Your task to perform on an android device: Open Chrome and go to the settings page Image 0: 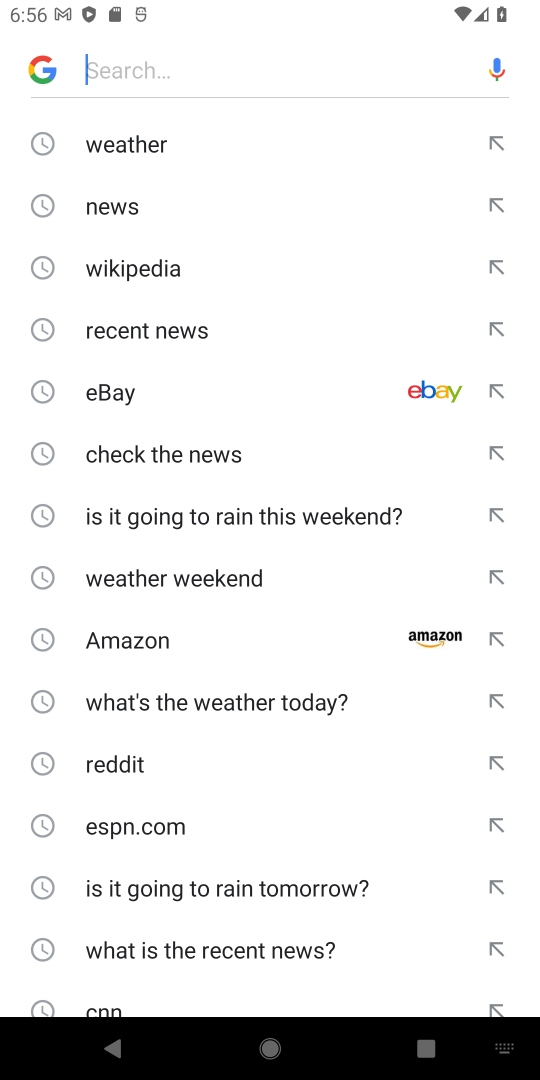
Step 0: press home button
Your task to perform on an android device: Open Chrome and go to the settings page Image 1: 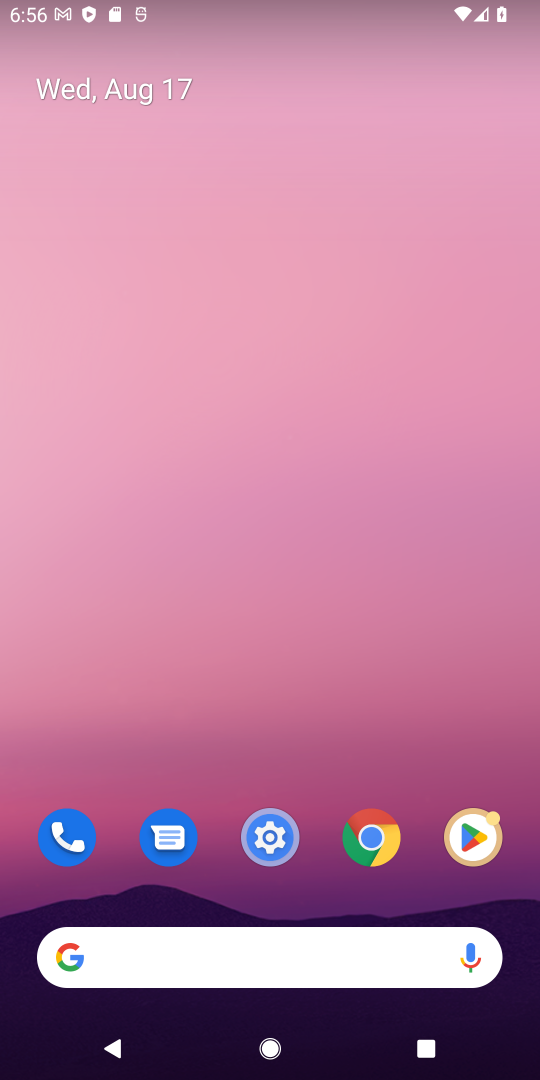
Step 1: click (370, 842)
Your task to perform on an android device: Open Chrome and go to the settings page Image 2: 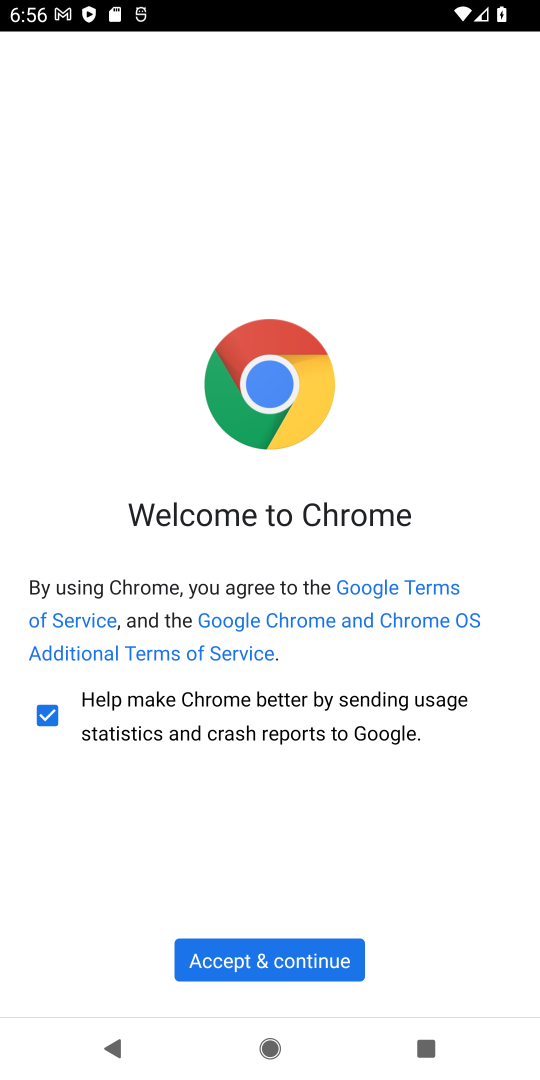
Step 2: click (344, 960)
Your task to perform on an android device: Open Chrome and go to the settings page Image 3: 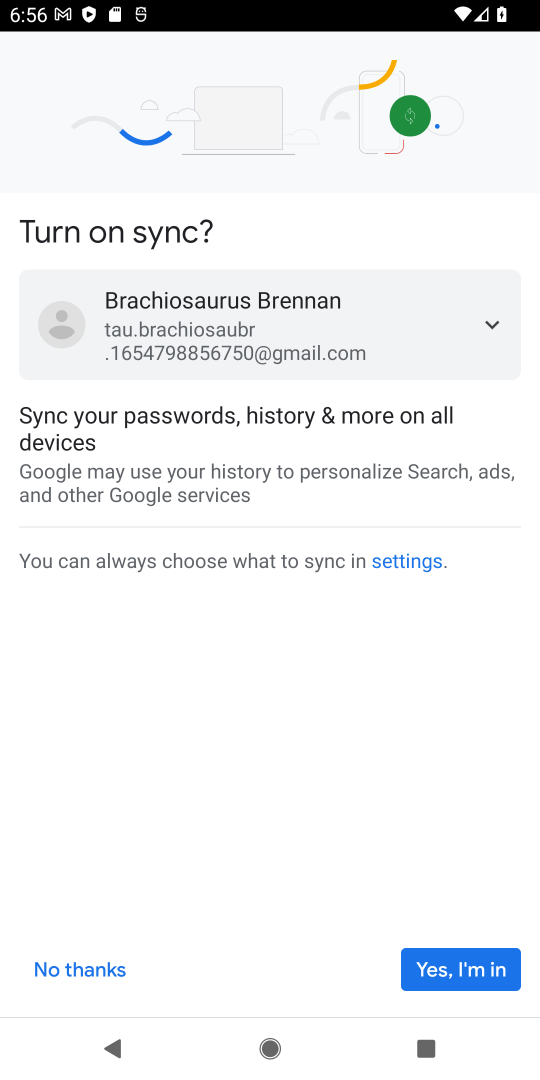
Step 3: click (427, 974)
Your task to perform on an android device: Open Chrome and go to the settings page Image 4: 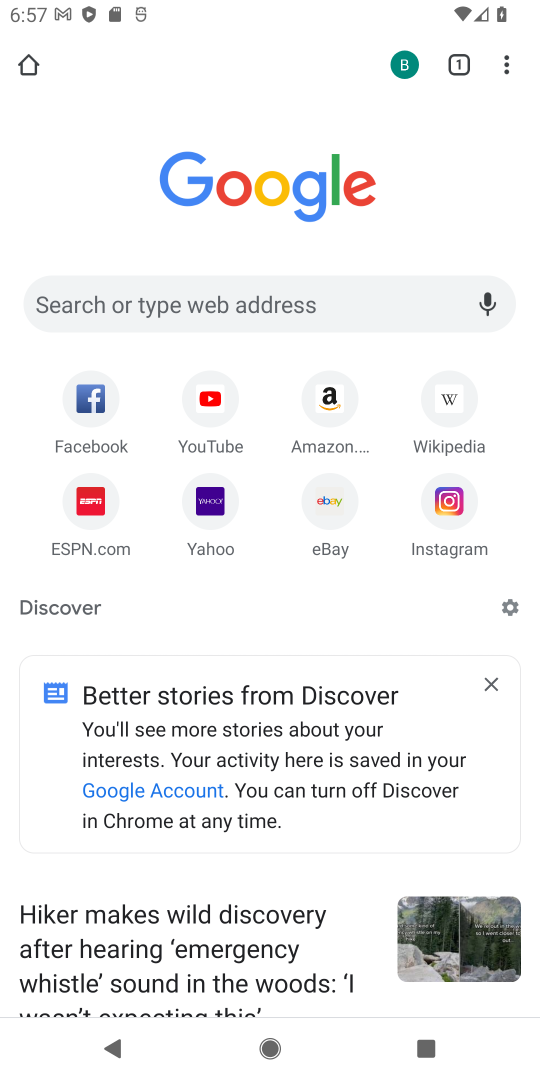
Step 4: click (508, 64)
Your task to perform on an android device: Open Chrome and go to the settings page Image 5: 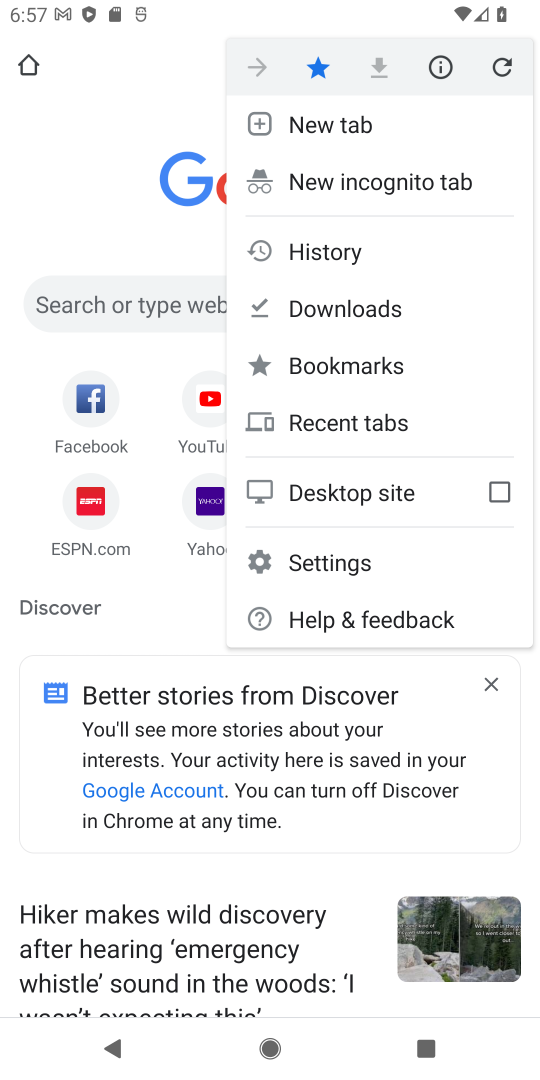
Step 5: click (376, 559)
Your task to perform on an android device: Open Chrome and go to the settings page Image 6: 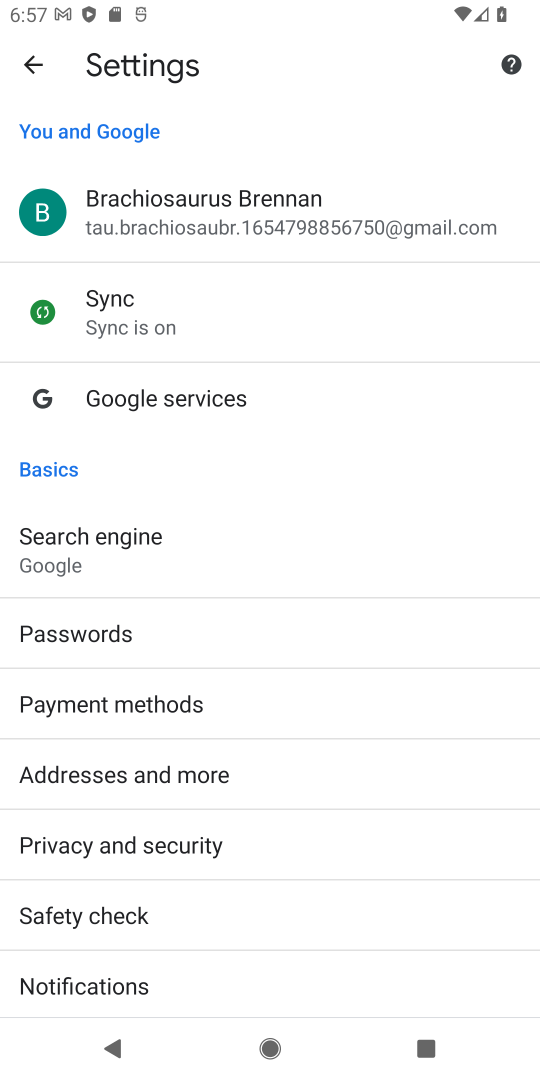
Step 6: task complete